Your task to perform on an android device: Open eBay Image 0: 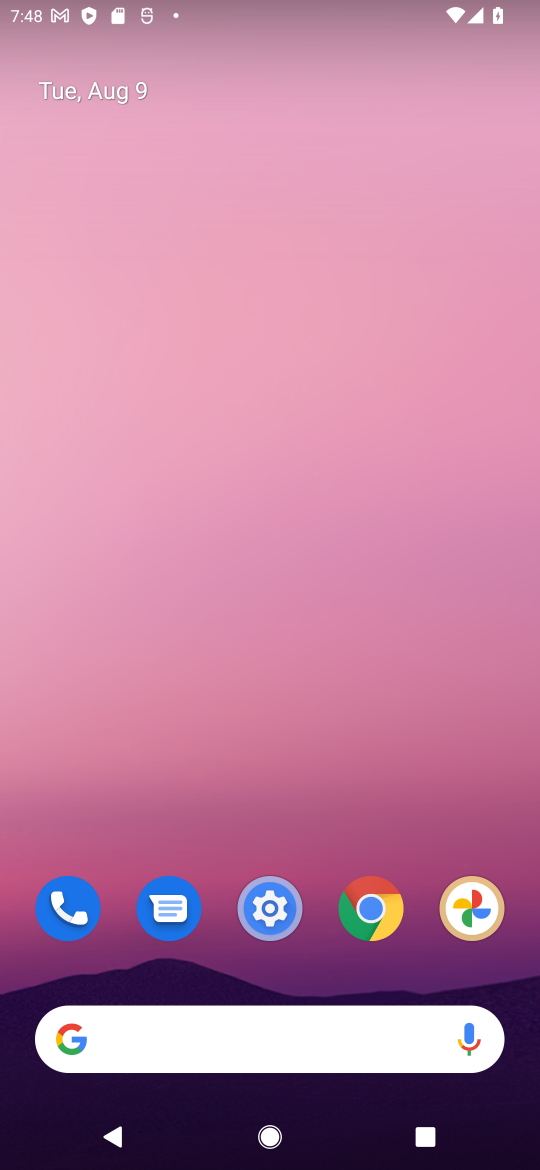
Step 0: drag from (287, 961) to (303, 252)
Your task to perform on an android device: Open eBay Image 1: 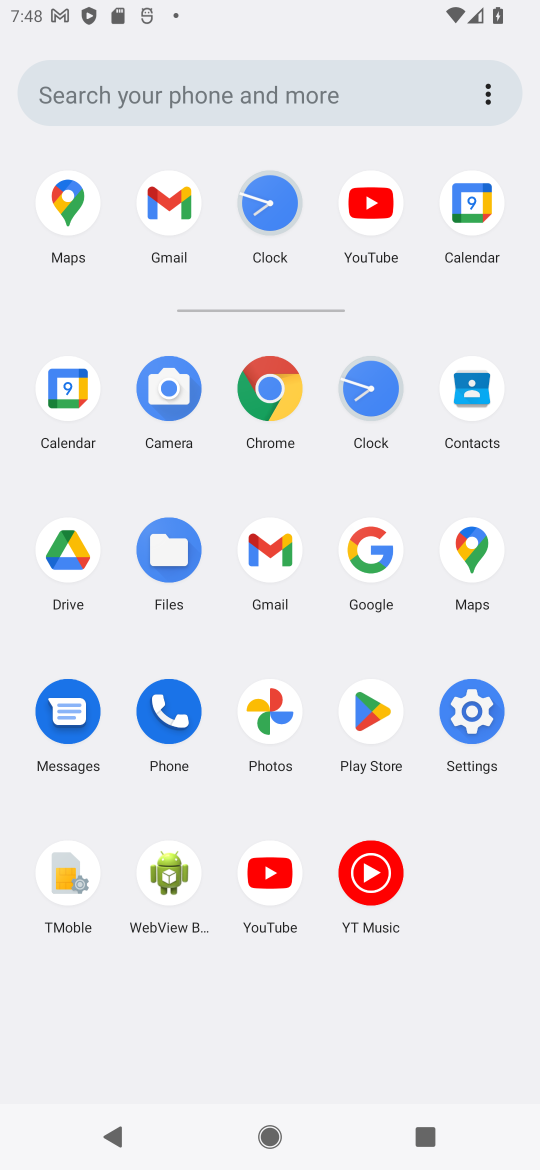
Step 1: click (269, 383)
Your task to perform on an android device: Open eBay Image 2: 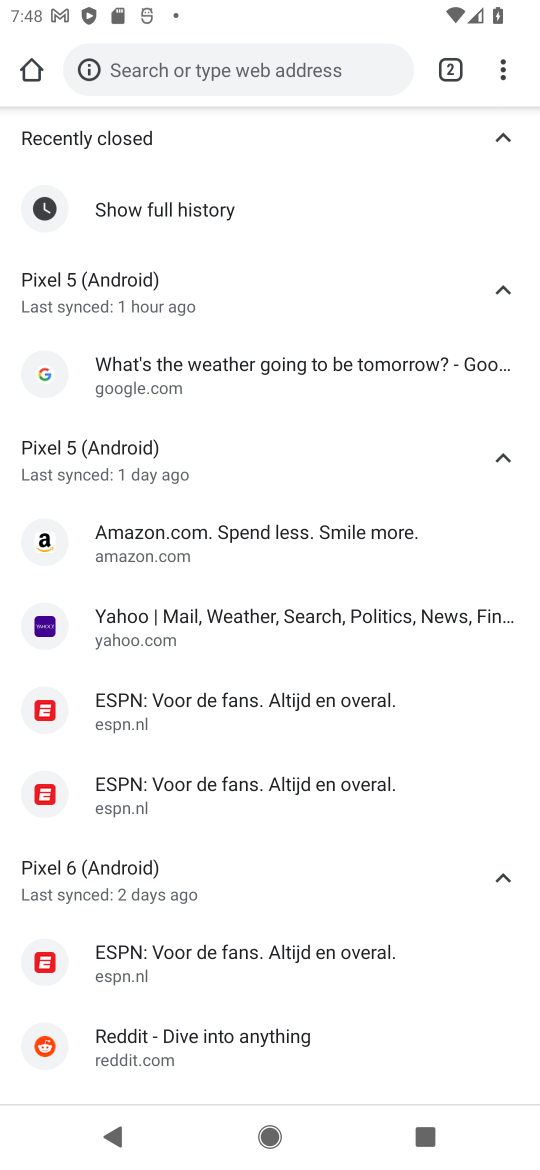
Step 2: click (506, 78)
Your task to perform on an android device: Open eBay Image 3: 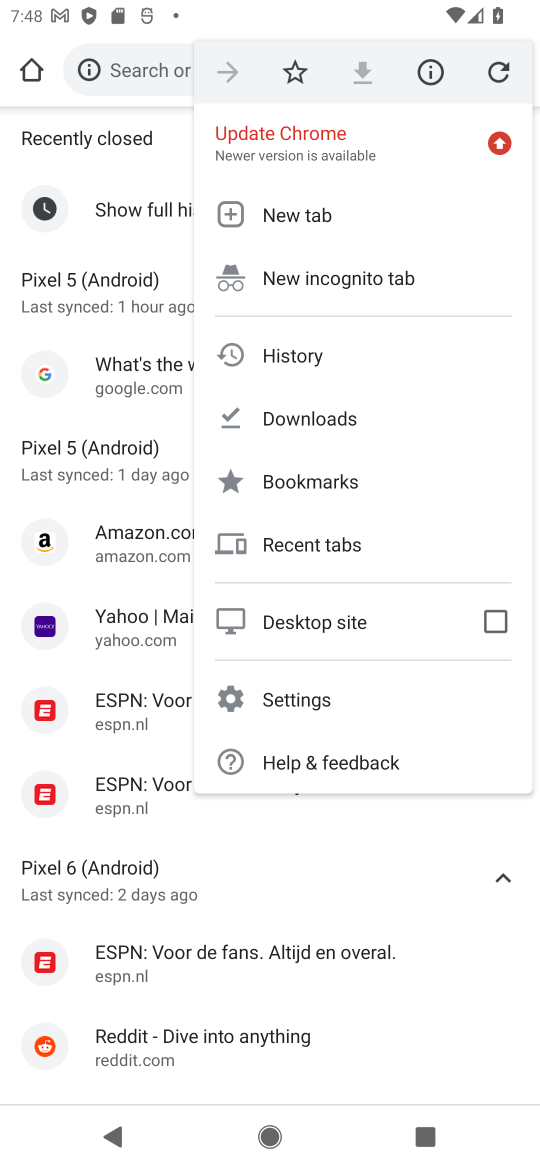
Step 3: click (310, 209)
Your task to perform on an android device: Open eBay Image 4: 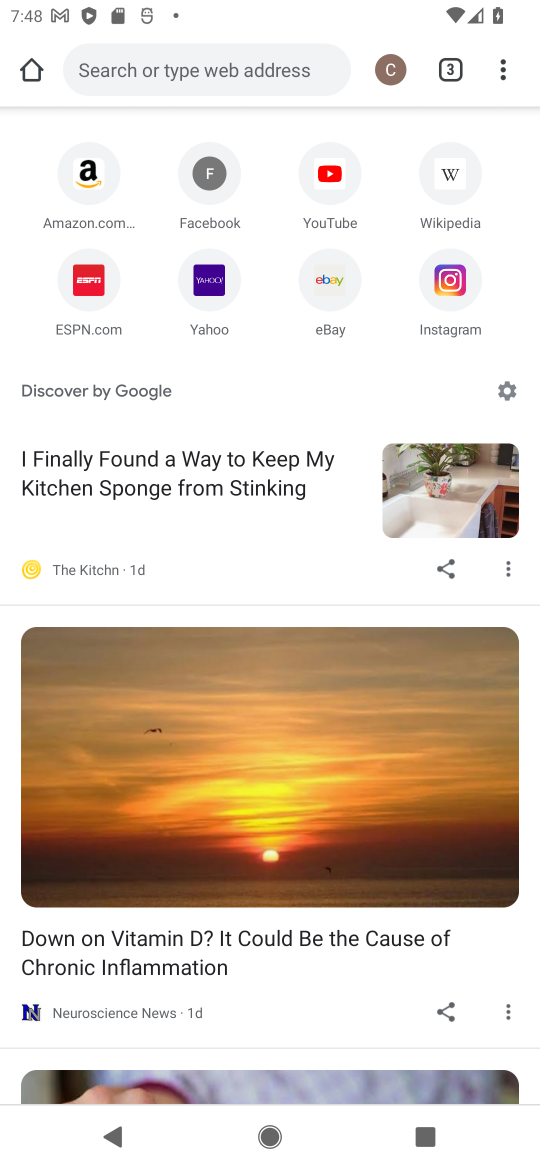
Step 4: click (327, 278)
Your task to perform on an android device: Open eBay Image 5: 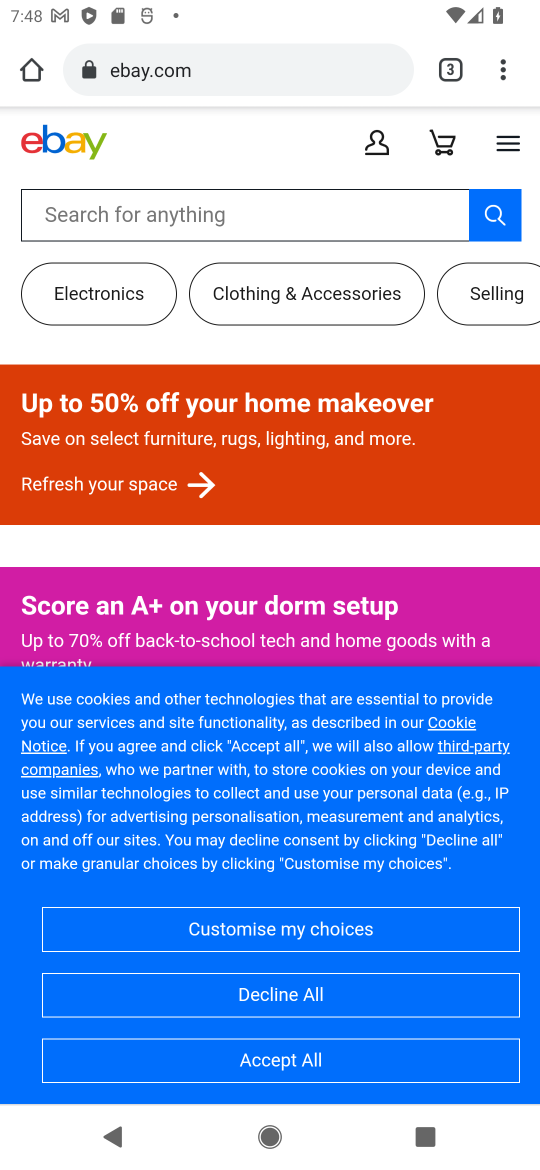
Step 5: task complete